Your task to perform on an android device: What is the news today? Image 0: 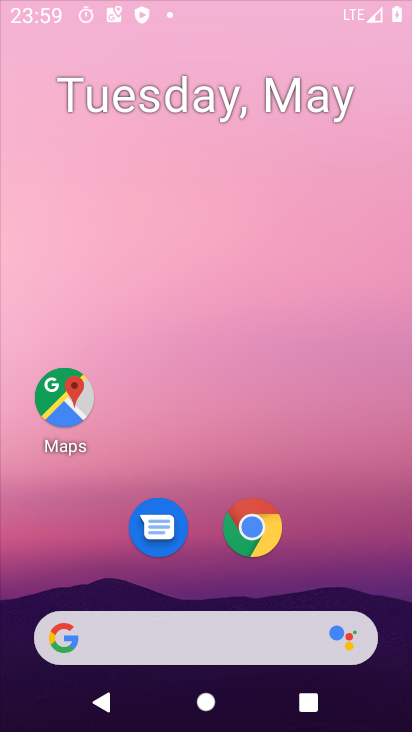
Step 0: click (217, 214)
Your task to perform on an android device: What is the news today? Image 1: 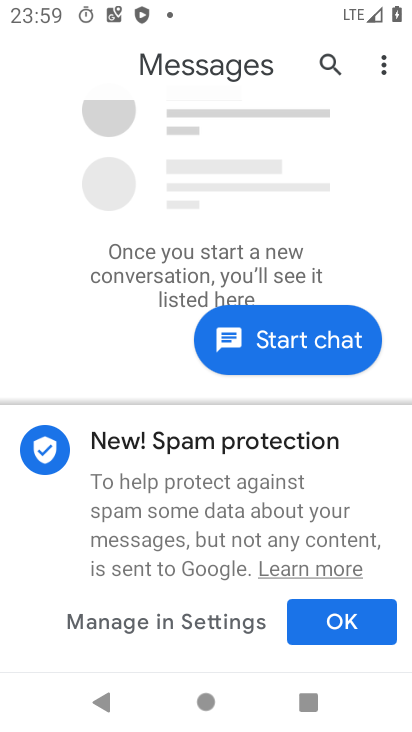
Step 1: drag from (213, 536) to (236, 227)
Your task to perform on an android device: What is the news today? Image 2: 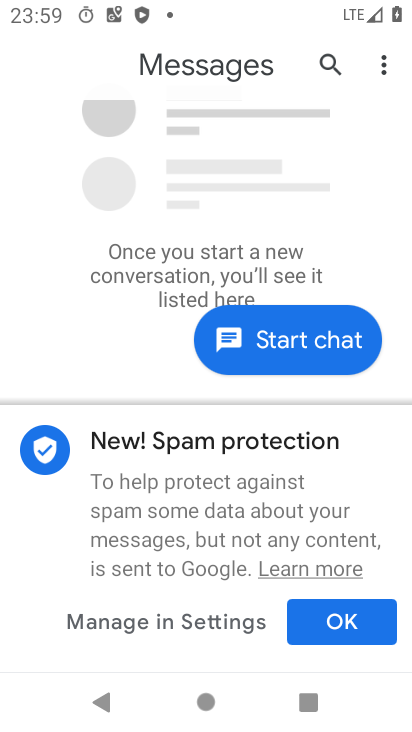
Step 2: drag from (200, 551) to (250, 280)
Your task to perform on an android device: What is the news today? Image 3: 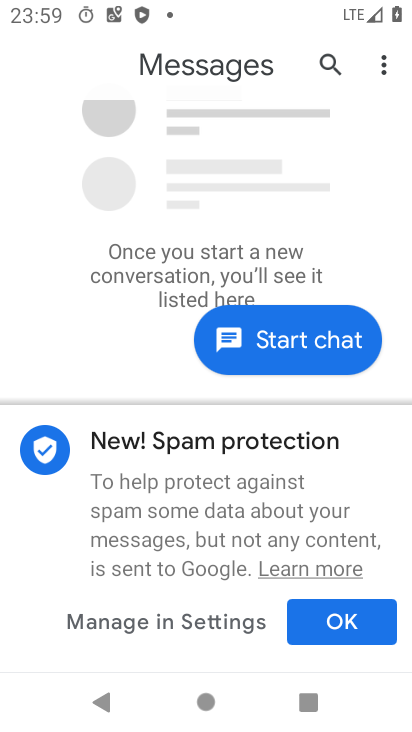
Step 3: press home button
Your task to perform on an android device: What is the news today? Image 4: 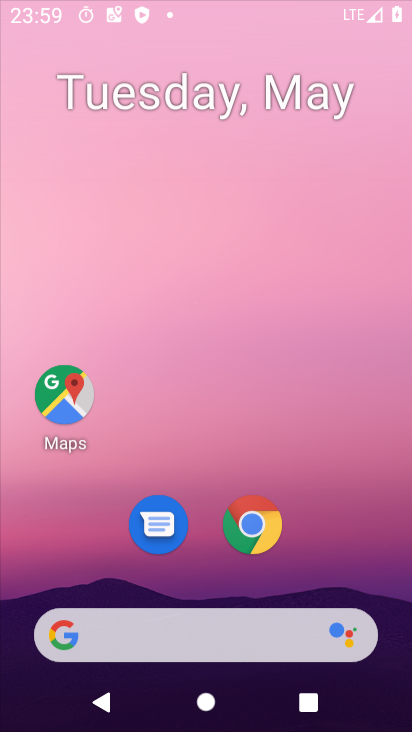
Step 4: drag from (239, 556) to (232, 306)
Your task to perform on an android device: What is the news today? Image 5: 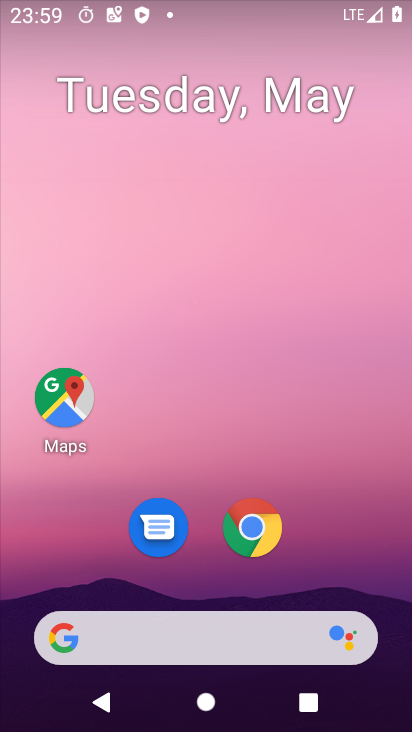
Step 5: drag from (217, 538) to (236, 134)
Your task to perform on an android device: What is the news today? Image 6: 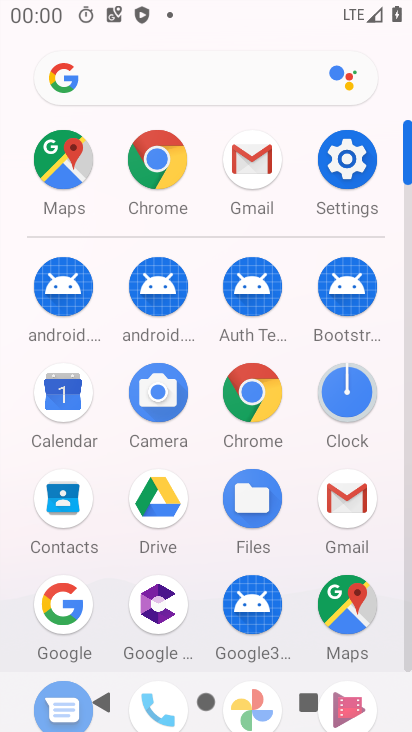
Step 6: drag from (211, 554) to (212, 97)
Your task to perform on an android device: What is the news today? Image 7: 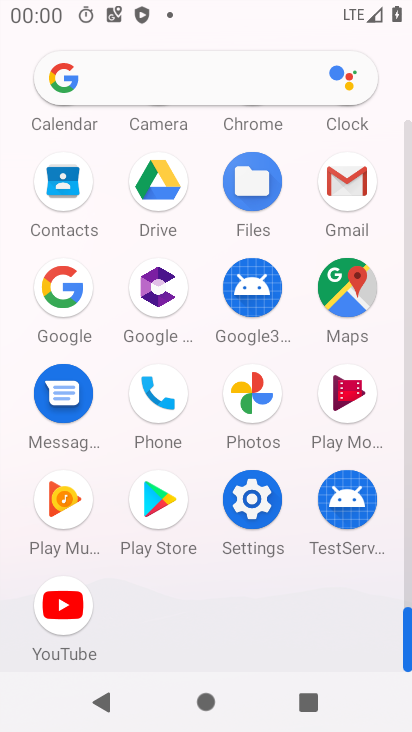
Step 7: click (194, 233)
Your task to perform on an android device: What is the news today? Image 8: 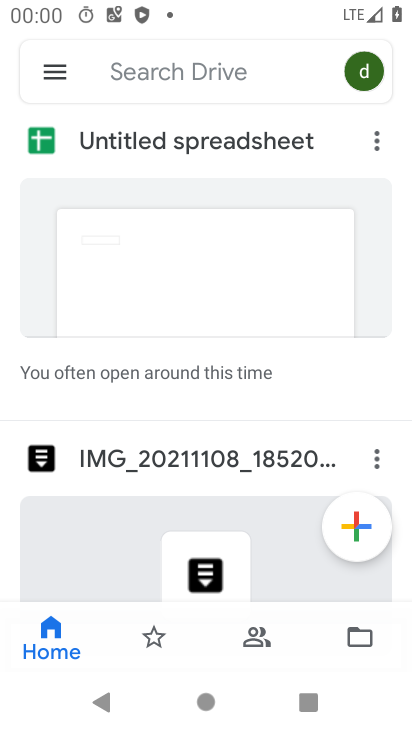
Step 8: drag from (190, 505) to (193, 306)
Your task to perform on an android device: What is the news today? Image 9: 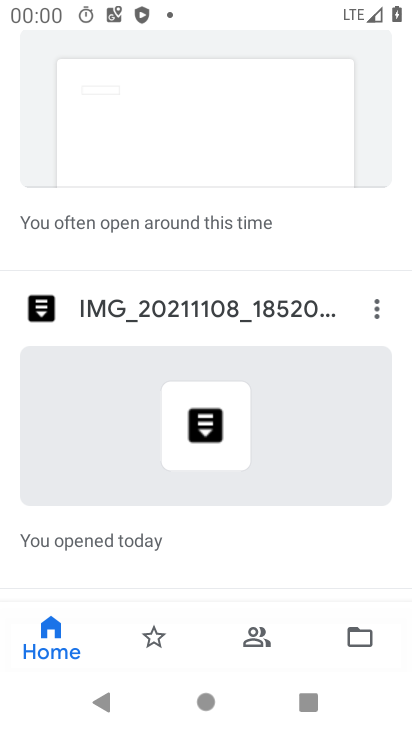
Step 9: drag from (191, 476) to (204, 253)
Your task to perform on an android device: What is the news today? Image 10: 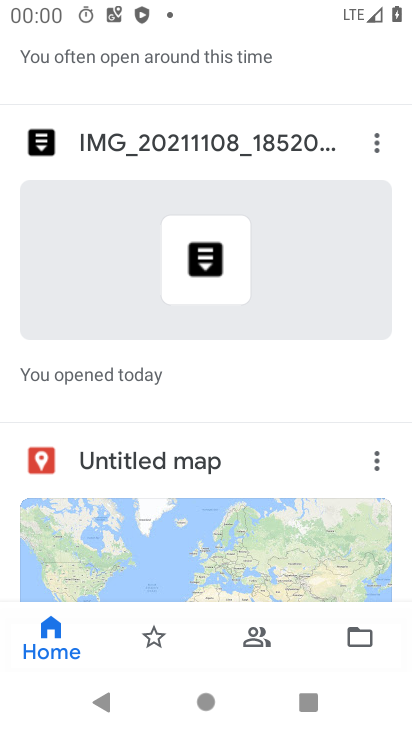
Step 10: drag from (236, 167) to (331, 726)
Your task to perform on an android device: What is the news today? Image 11: 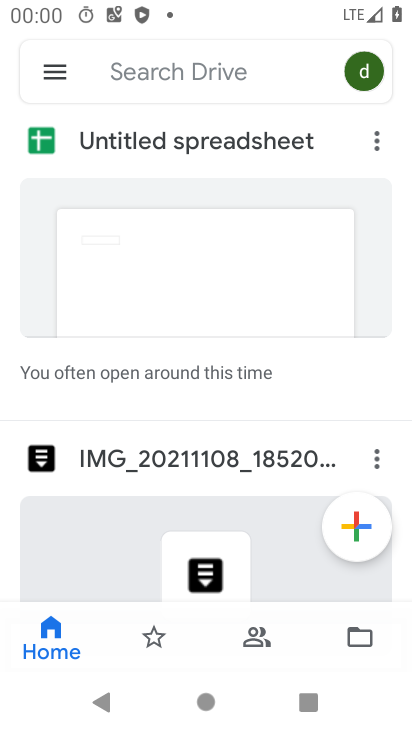
Step 11: drag from (138, 359) to (372, 705)
Your task to perform on an android device: What is the news today? Image 12: 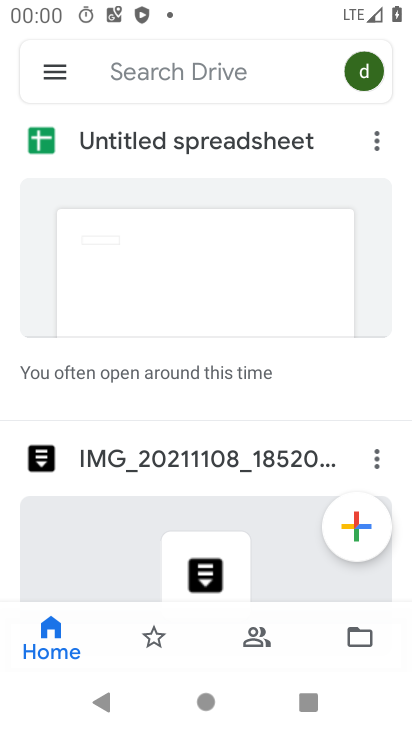
Step 12: press home button
Your task to perform on an android device: What is the news today? Image 13: 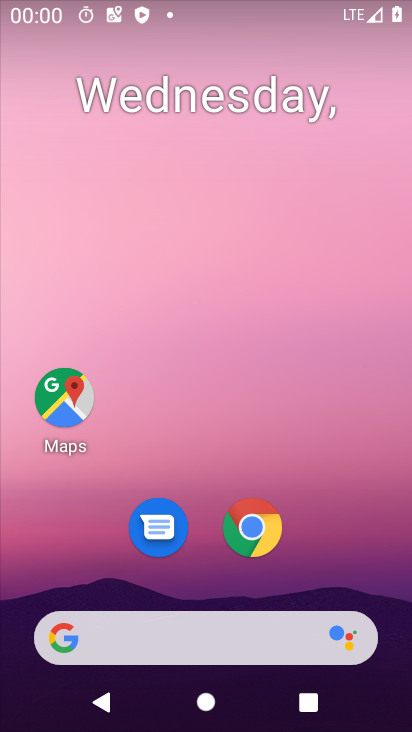
Step 13: drag from (207, 554) to (274, 112)
Your task to perform on an android device: What is the news today? Image 14: 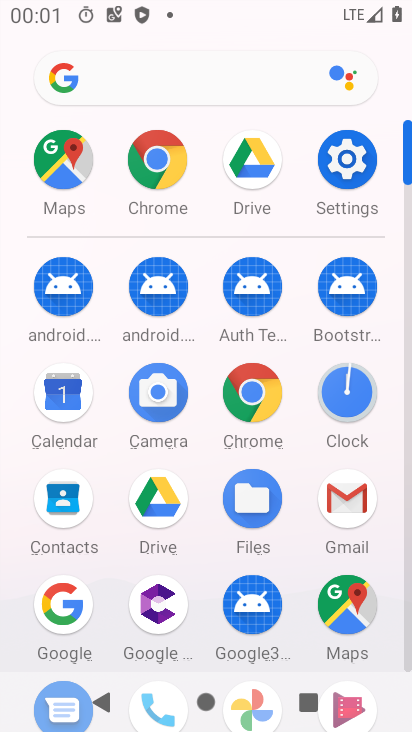
Step 14: click (159, 65)
Your task to perform on an android device: What is the news today? Image 15: 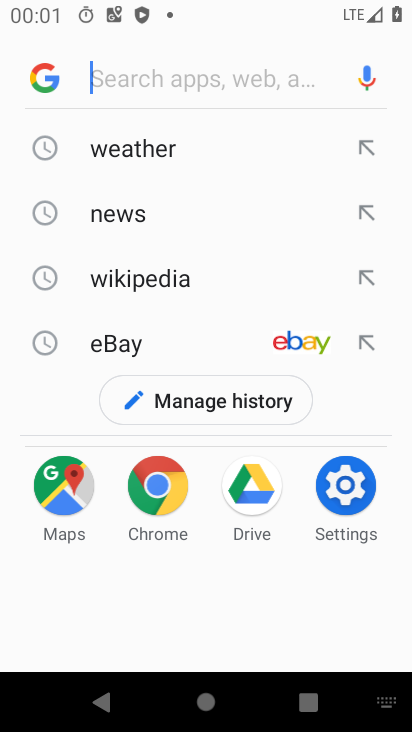
Step 15: type "news today?"
Your task to perform on an android device: What is the news today? Image 16: 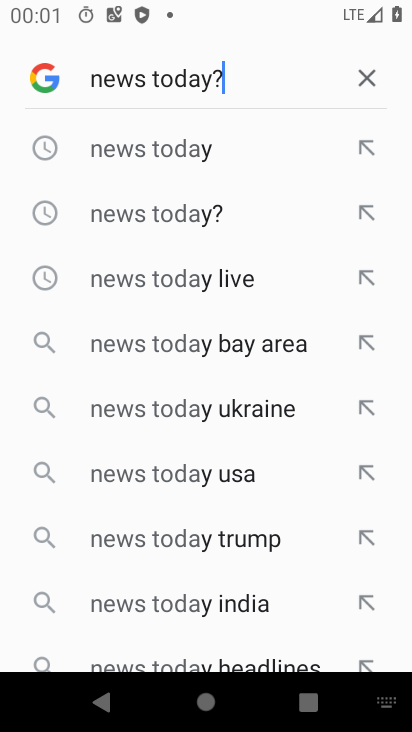
Step 16: type ""
Your task to perform on an android device: What is the news today? Image 17: 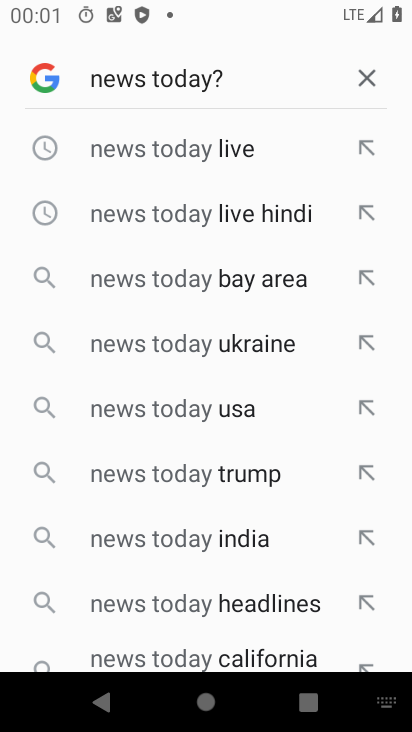
Step 17: click (119, 144)
Your task to perform on an android device: What is the news today? Image 18: 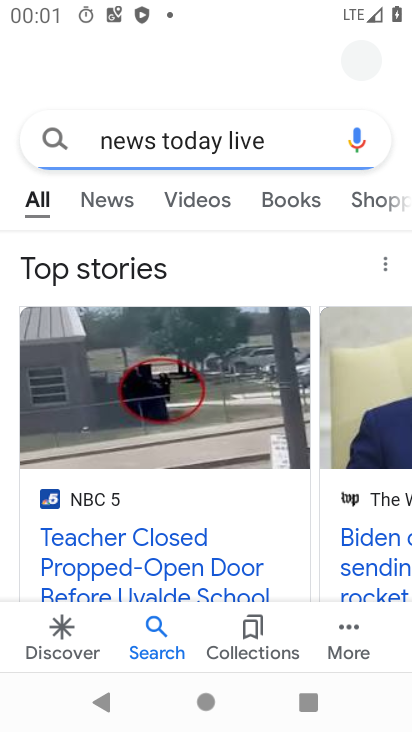
Step 18: task complete